Your task to perform on an android device: change notification settings in the gmail app Image 0: 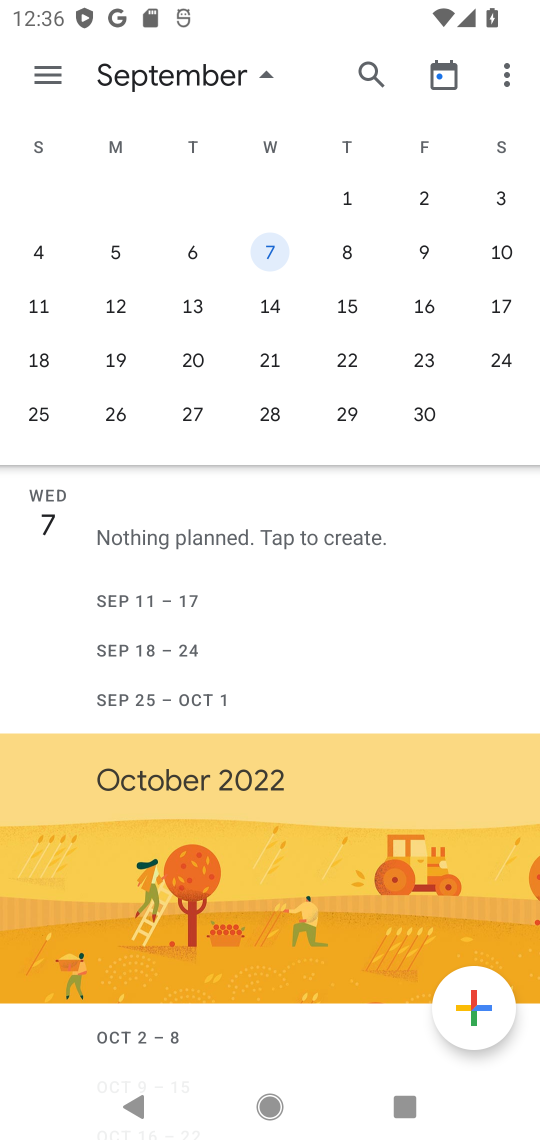
Step 0: press home button
Your task to perform on an android device: change notification settings in the gmail app Image 1: 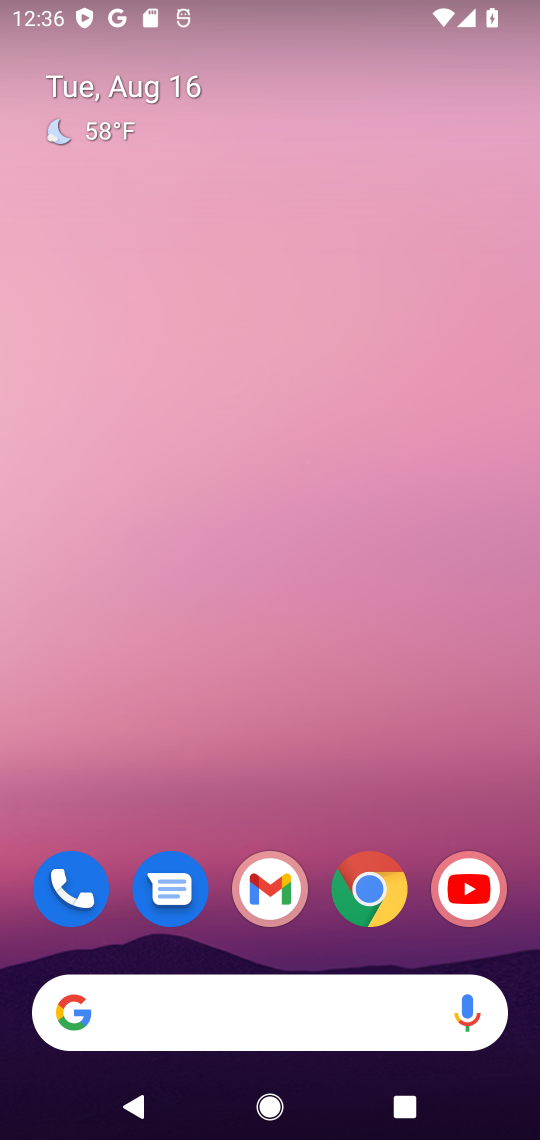
Step 1: drag from (342, 940) to (231, 18)
Your task to perform on an android device: change notification settings in the gmail app Image 2: 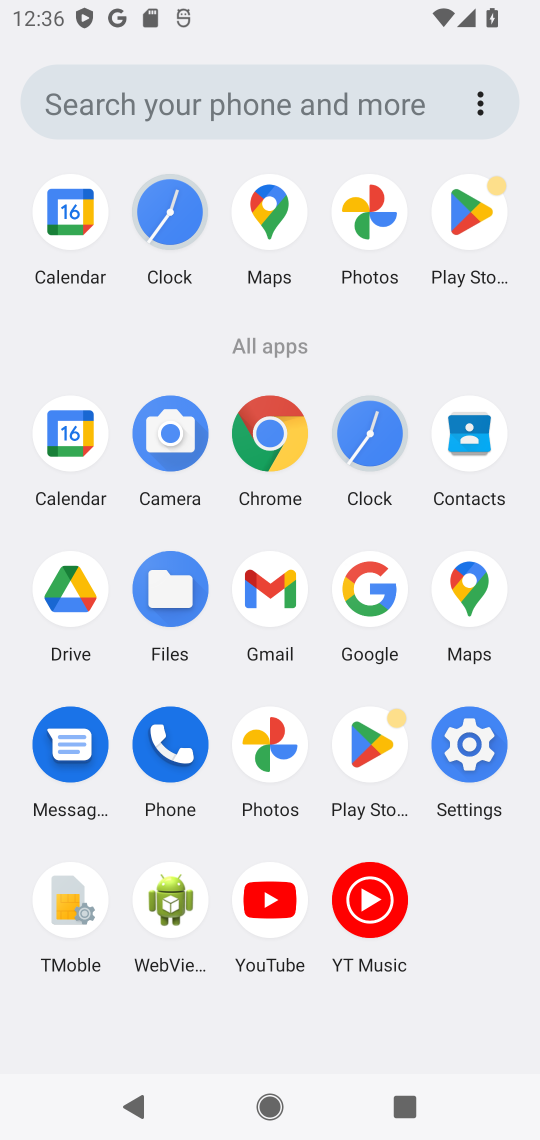
Step 2: click (282, 593)
Your task to perform on an android device: change notification settings in the gmail app Image 3: 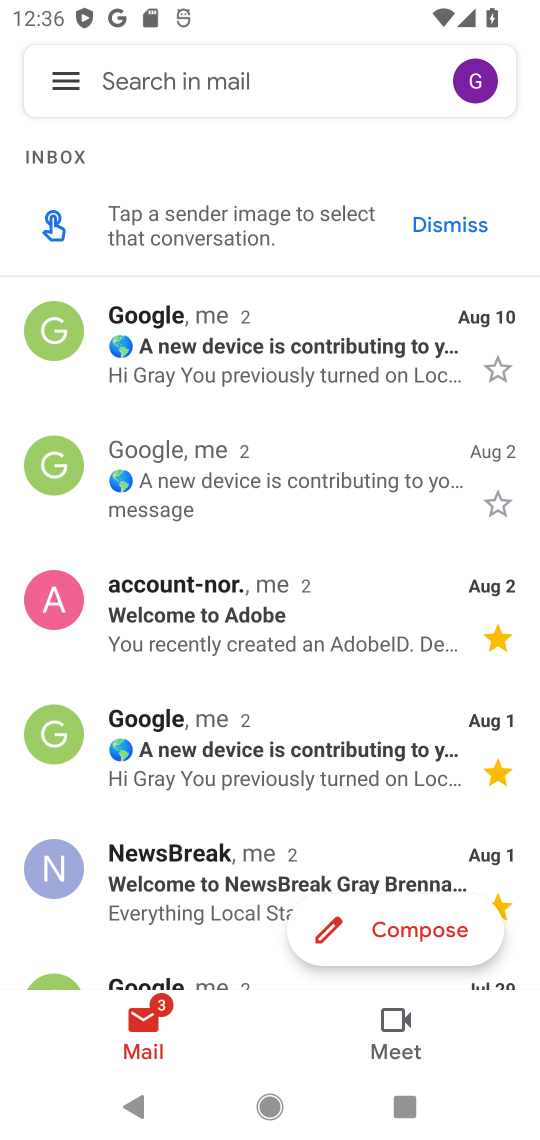
Step 3: click (42, 87)
Your task to perform on an android device: change notification settings in the gmail app Image 4: 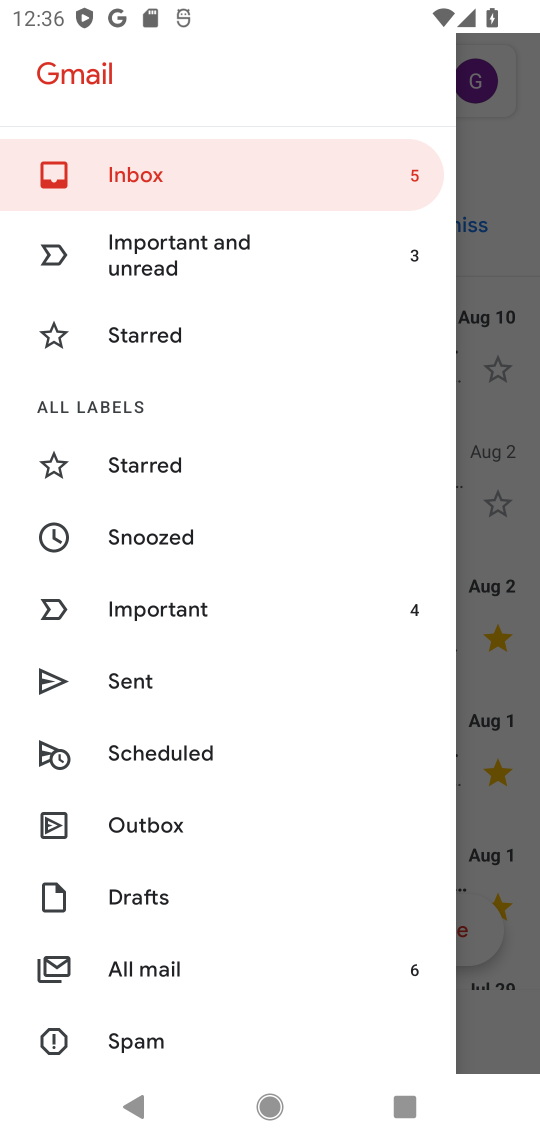
Step 4: drag from (179, 947) to (254, 240)
Your task to perform on an android device: change notification settings in the gmail app Image 5: 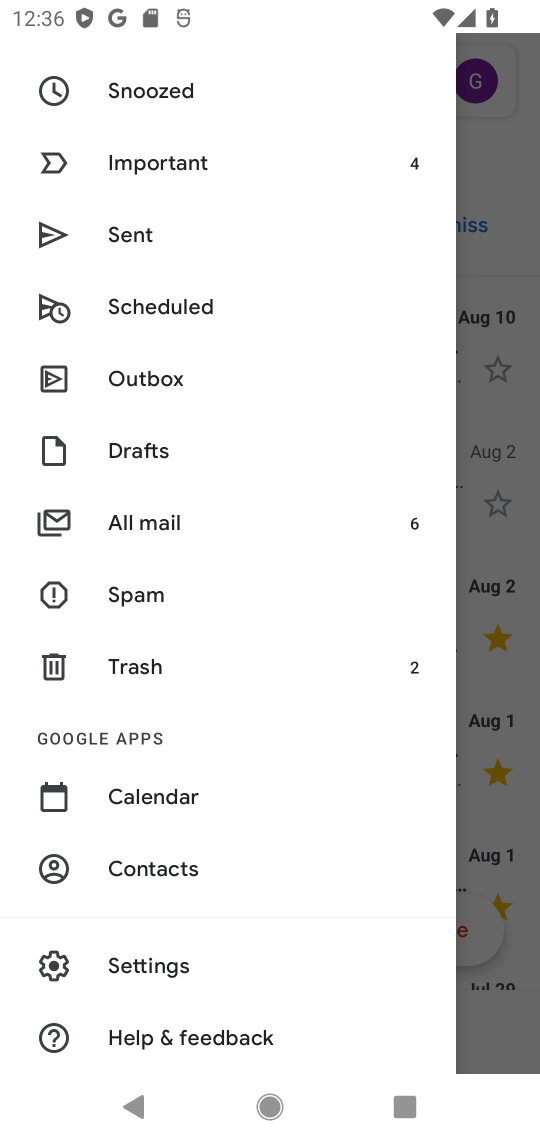
Step 5: click (188, 969)
Your task to perform on an android device: change notification settings in the gmail app Image 6: 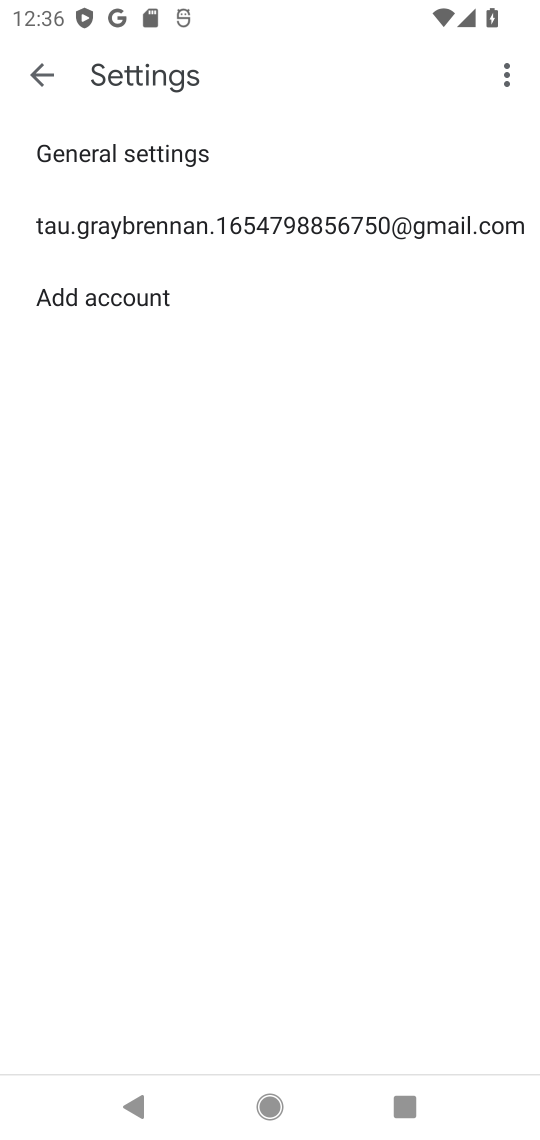
Step 6: click (98, 227)
Your task to perform on an android device: change notification settings in the gmail app Image 7: 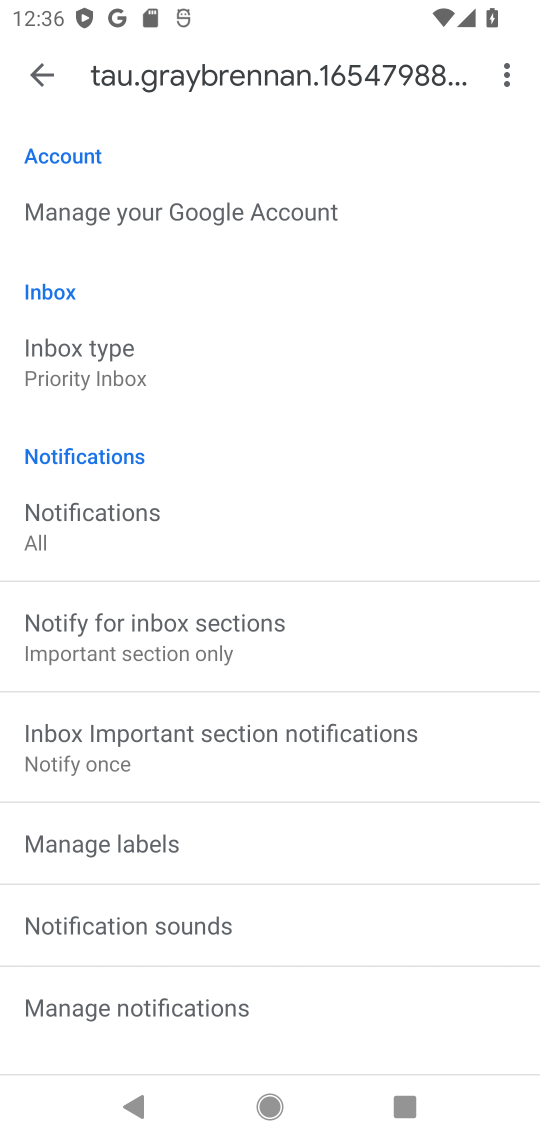
Step 7: click (96, 533)
Your task to perform on an android device: change notification settings in the gmail app Image 8: 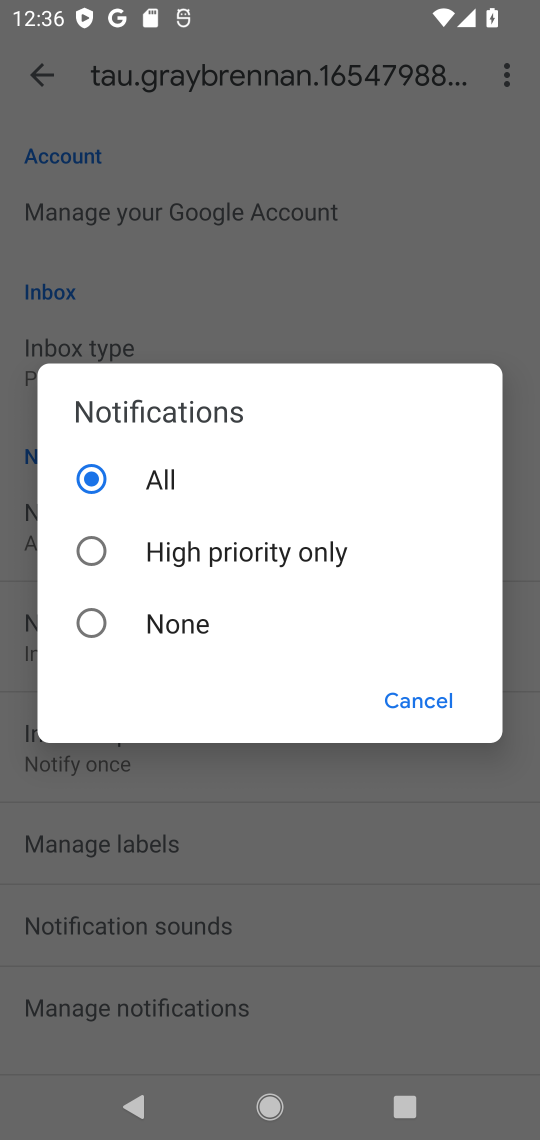
Step 8: click (177, 557)
Your task to perform on an android device: change notification settings in the gmail app Image 9: 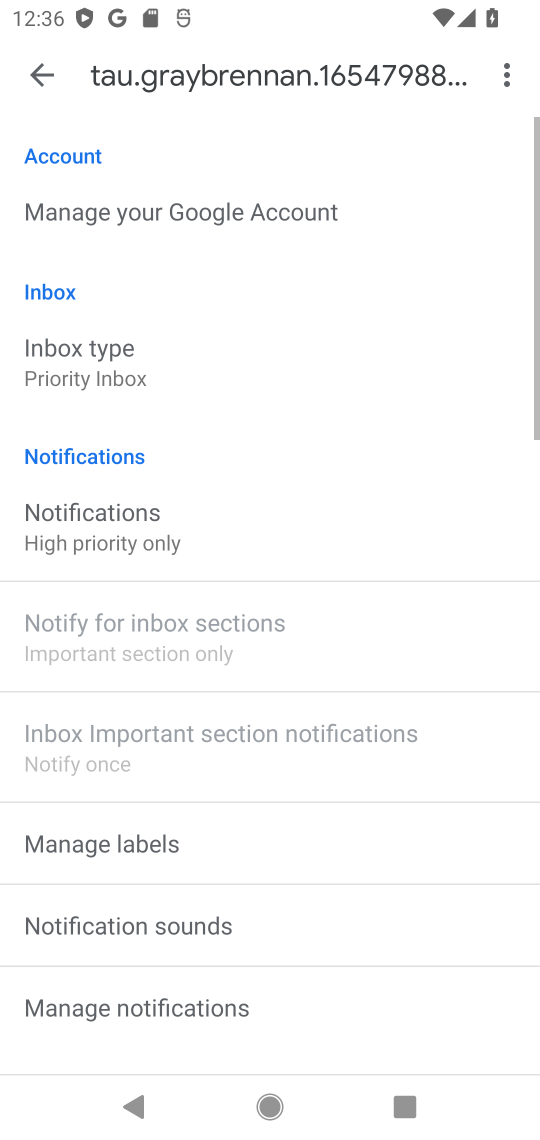
Step 9: task complete